Your task to perform on an android device: toggle show notifications on the lock screen Image 0: 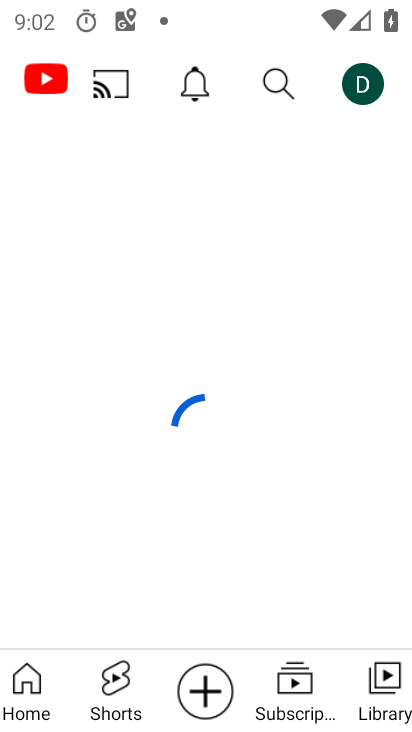
Step 0: press back button
Your task to perform on an android device: toggle show notifications on the lock screen Image 1: 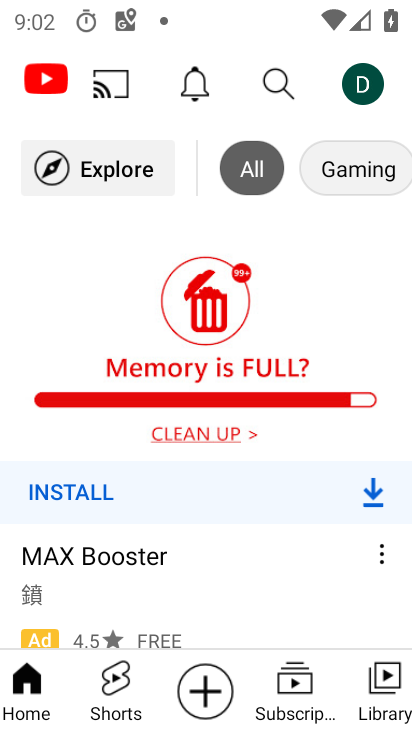
Step 1: press home button
Your task to perform on an android device: toggle show notifications on the lock screen Image 2: 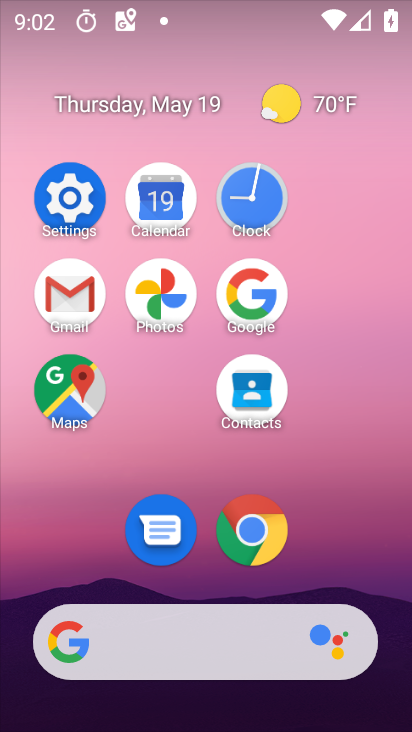
Step 2: click (73, 209)
Your task to perform on an android device: toggle show notifications on the lock screen Image 3: 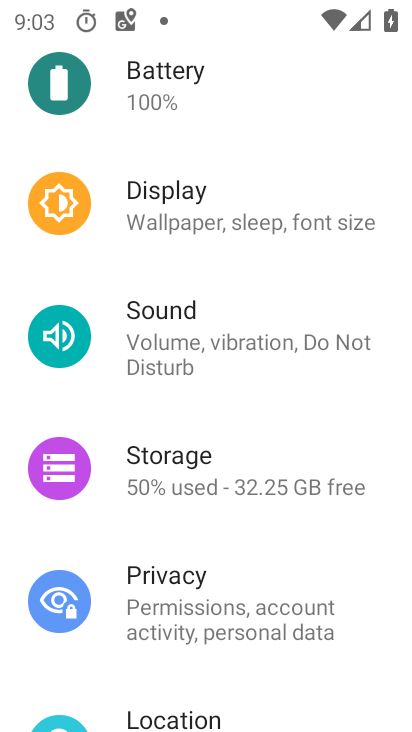
Step 3: drag from (289, 191) to (293, 602)
Your task to perform on an android device: toggle show notifications on the lock screen Image 4: 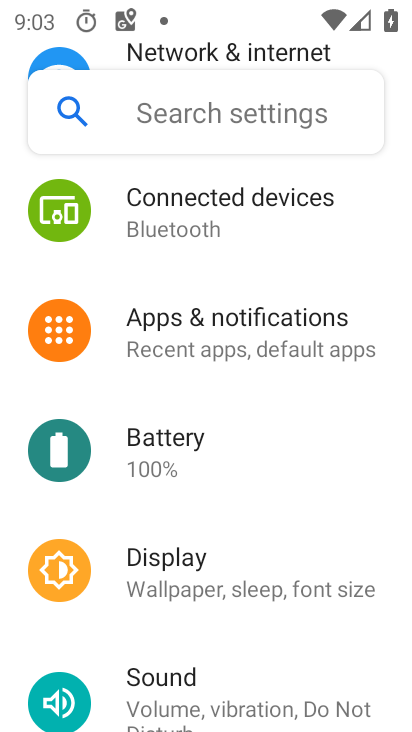
Step 4: click (279, 339)
Your task to perform on an android device: toggle show notifications on the lock screen Image 5: 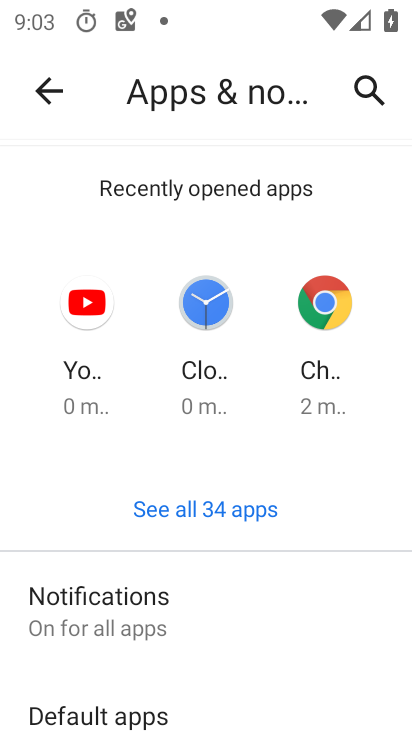
Step 5: click (237, 620)
Your task to perform on an android device: toggle show notifications on the lock screen Image 6: 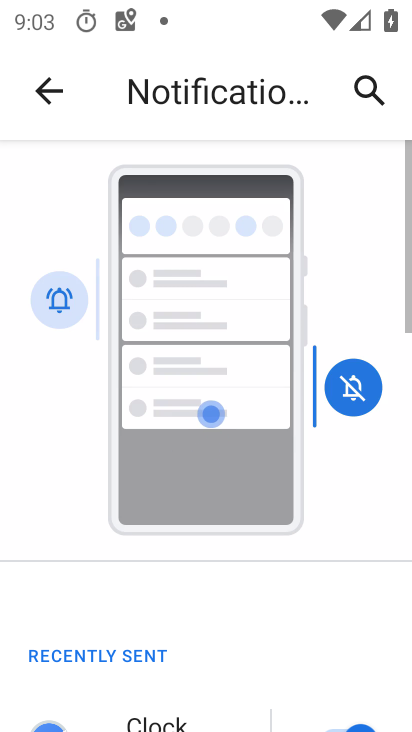
Step 6: drag from (237, 620) to (274, 222)
Your task to perform on an android device: toggle show notifications on the lock screen Image 7: 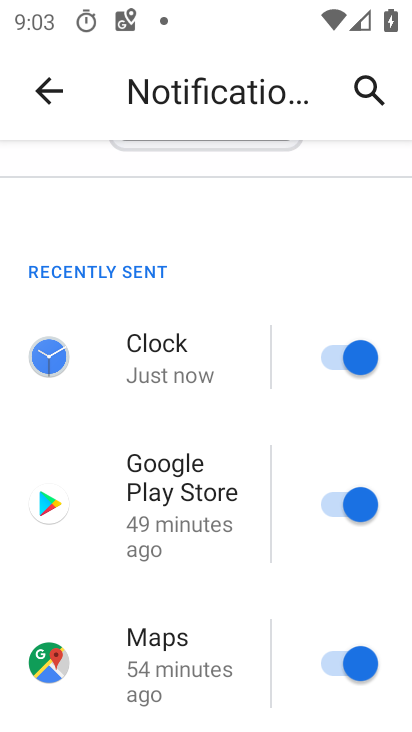
Step 7: drag from (219, 599) to (263, 209)
Your task to perform on an android device: toggle show notifications on the lock screen Image 8: 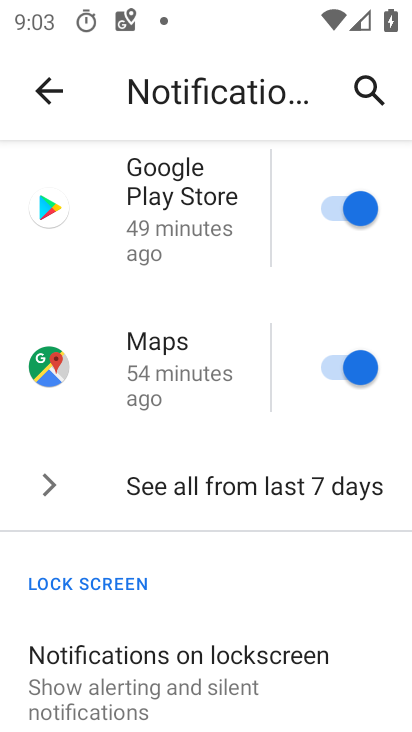
Step 8: click (209, 669)
Your task to perform on an android device: toggle show notifications on the lock screen Image 9: 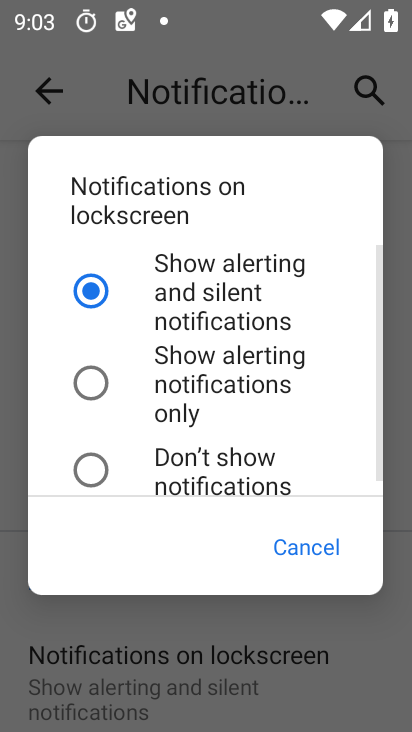
Step 9: click (165, 373)
Your task to perform on an android device: toggle show notifications on the lock screen Image 10: 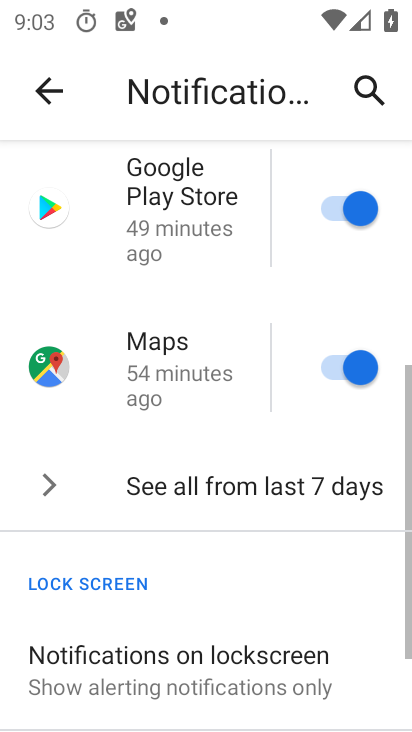
Step 10: task complete